Your task to perform on an android device: Go to wifi settings Image 0: 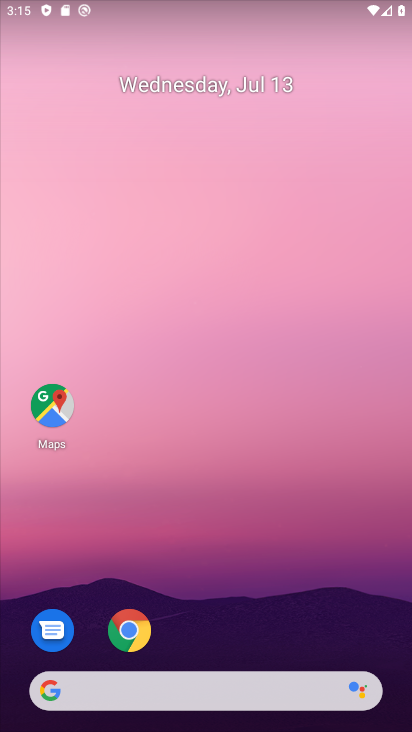
Step 0: drag from (237, 593) to (215, 16)
Your task to perform on an android device: Go to wifi settings Image 1: 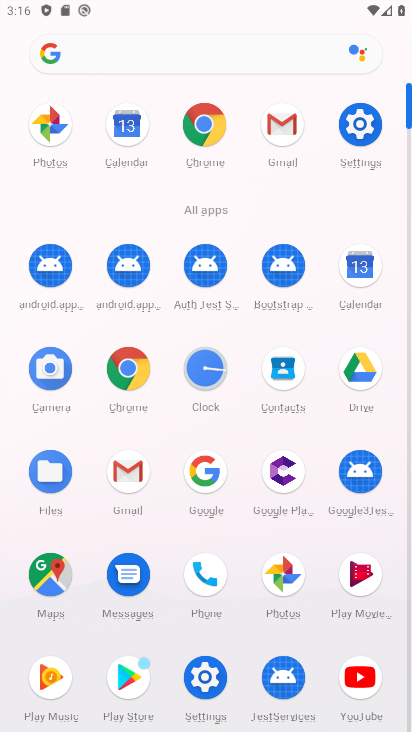
Step 1: click (368, 127)
Your task to perform on an android device: Go to wifi settings Image 2: 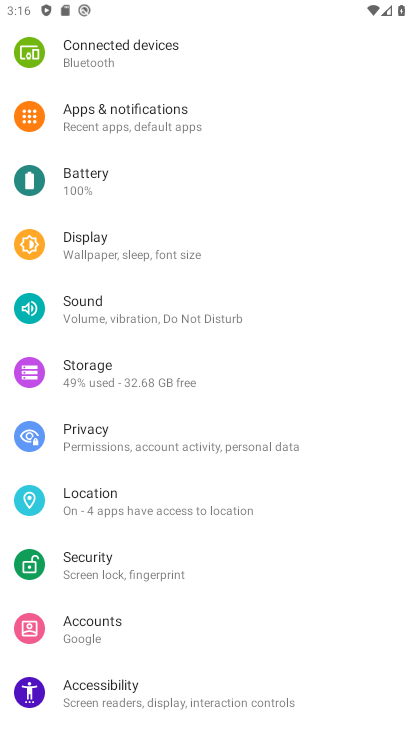
Step 2: drag from (274, 148) to (274, 502)
Your task to perform on an android device: Go to wifi settings Image 3: 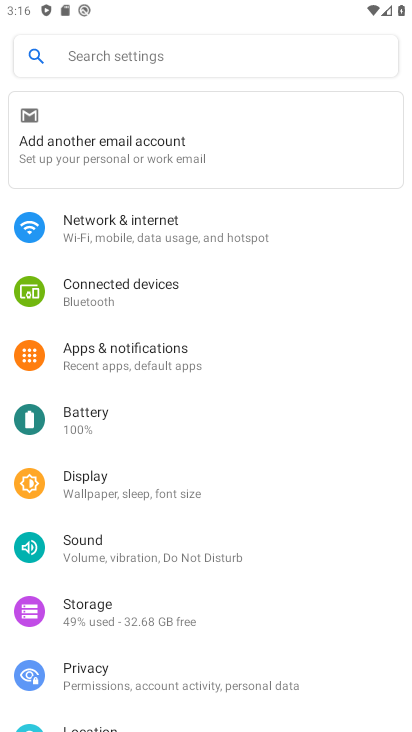
Step 3: click (93, 227)
Your task to perform on an android device: Go to wifi settings Image 4: 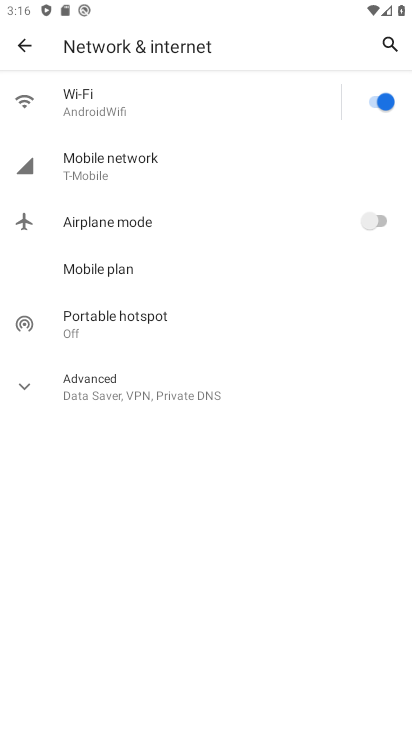
Step 4: click (92, 97)
Your task to perform on an android device: Go to wifi settings Image 5: 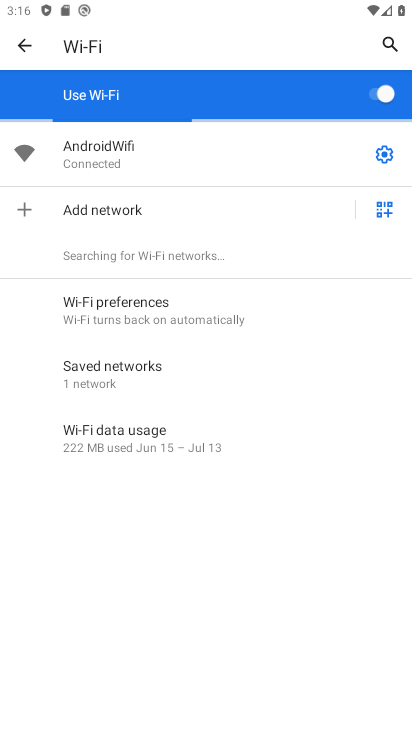
Step 5: task complete